Your task to perform on an android device: Add bose quietcomfort 35 to the cart on ebay.com Image 0: 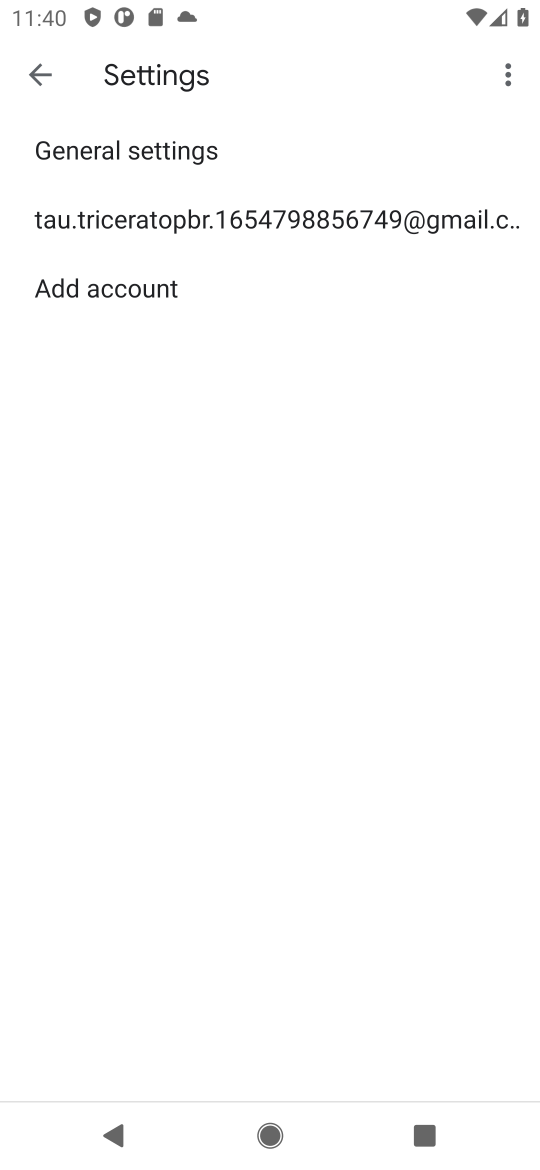
Step 0: press home button
Your task to perform on an android device: Add bose quietcomfort 35 to the cart on ebay.com Image 1: 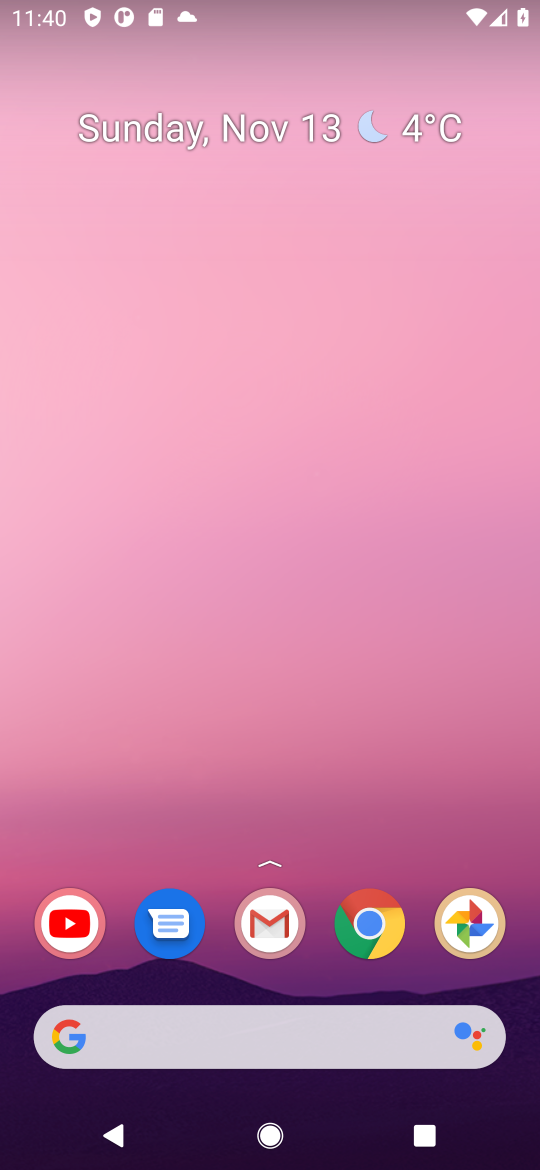
Step 1: click (376, 927)
Your task to perform on an android device: Add bose quietcomfort 35 to the cart on ebay.com Image 2: 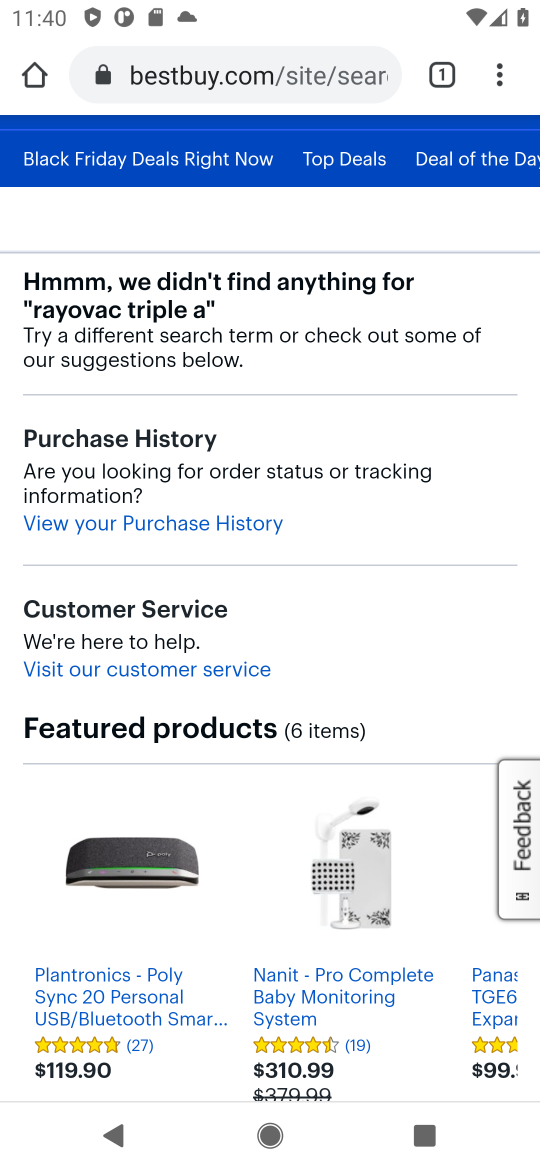
Step 2: click (321, 70)
Your task to perform on an android device: Add bose quietcomfort 35 to the cart on ebay.com Image 3: 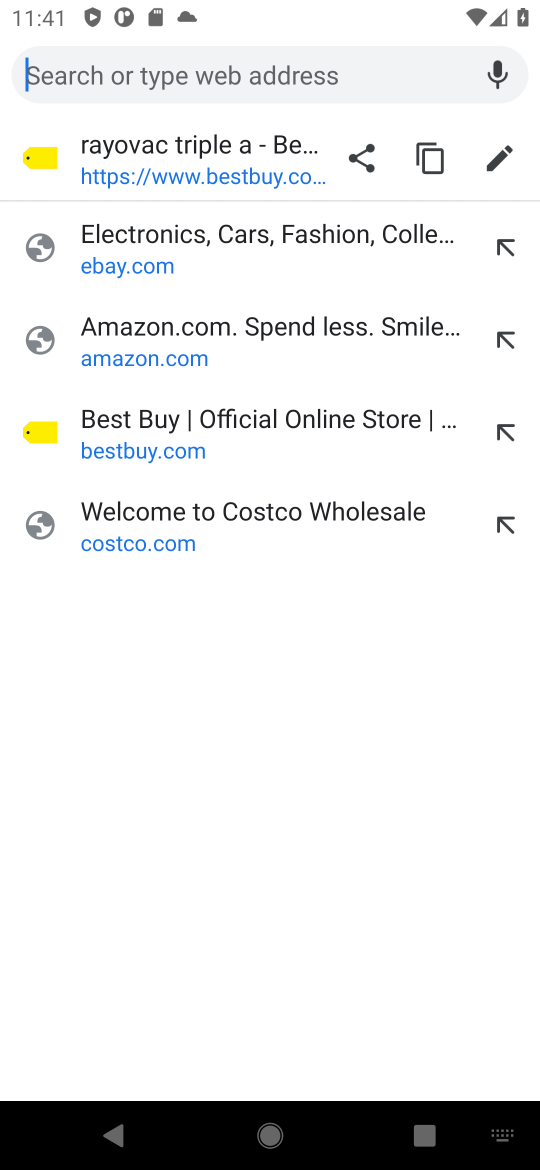
Step 3: click (161, 240)
Your task to perform on an android device: Add bose quietcomfort 35 to the cart on ebay.com Image 4: 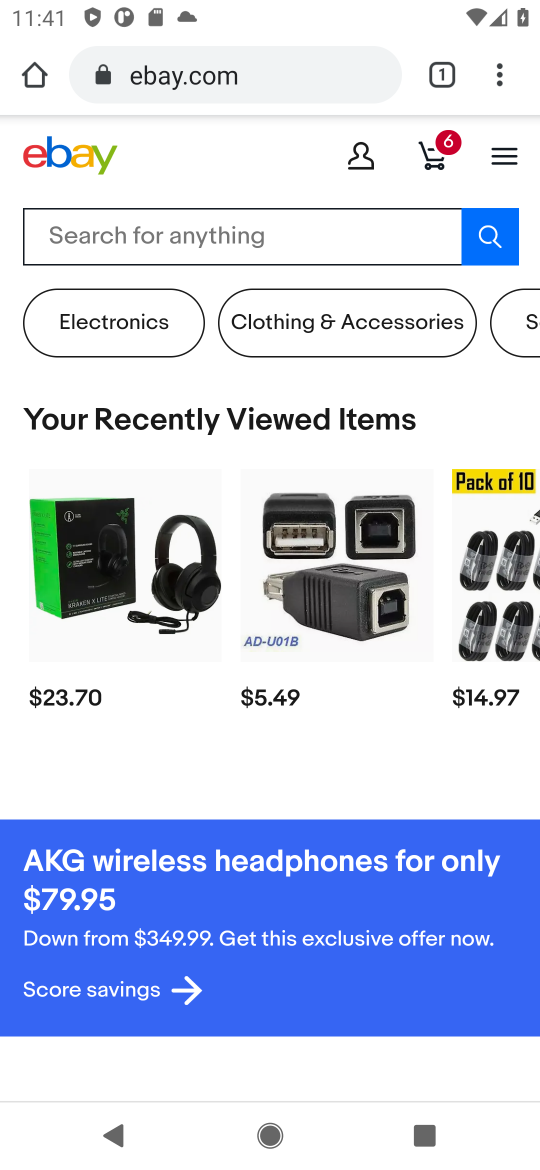
Step 4: click (349, 238)
Your task to perform on an android device: Add bose quietcomfort 35 to the cart on ebay.com Image 5: 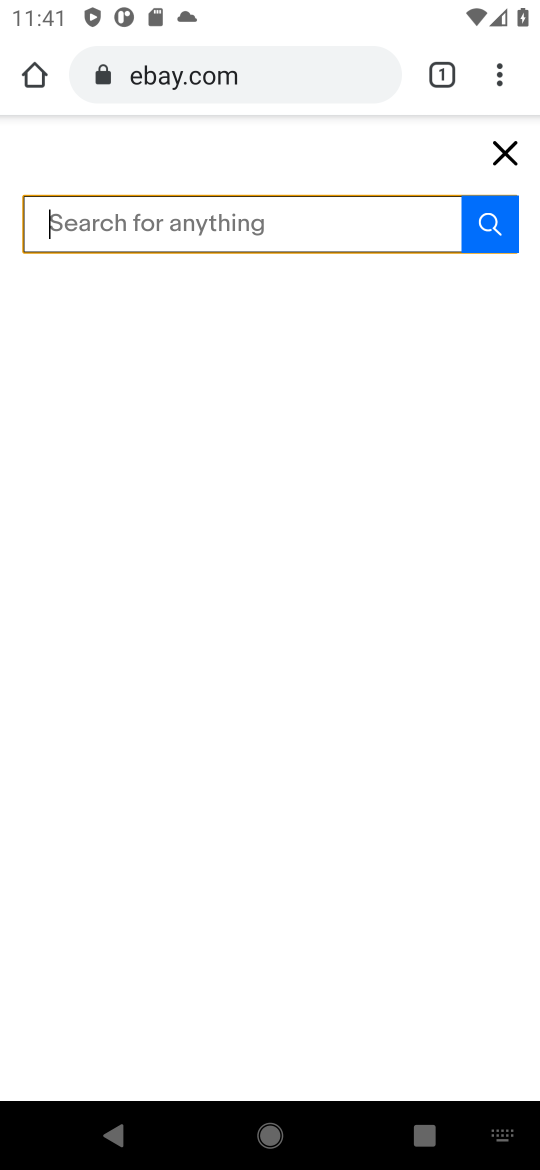
Step 5: type "bose quietcomfort 35 "
Your task to perform on an android device: Add bose quietcomfort 35 to the cart on ebay.com Image 6: 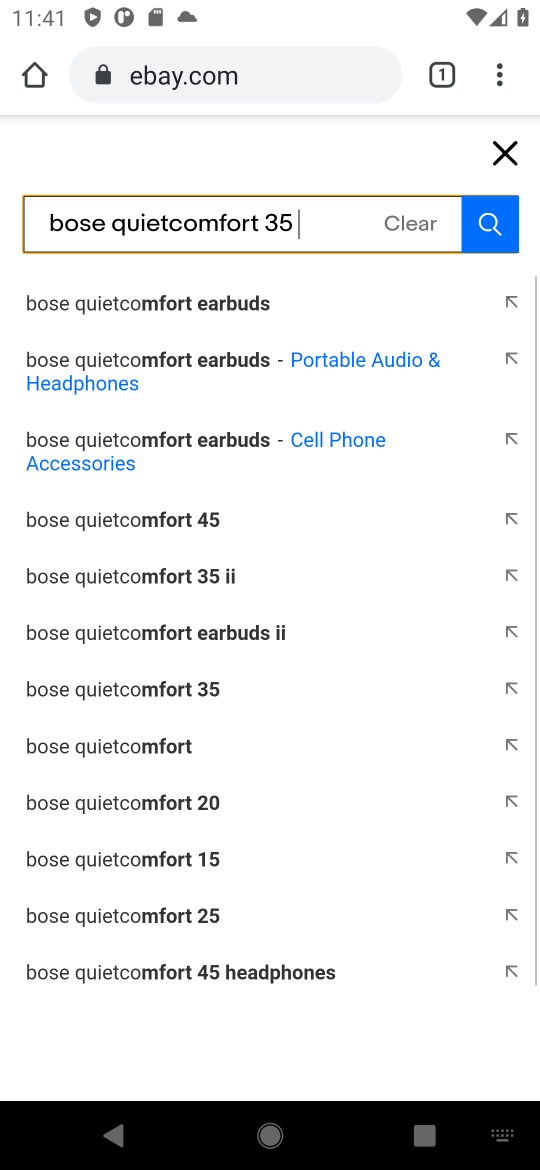
Step 6: press enter
Your task to perform on an android device: Add bose quietcomfort 35 to the cart on ebay.com Image 7: 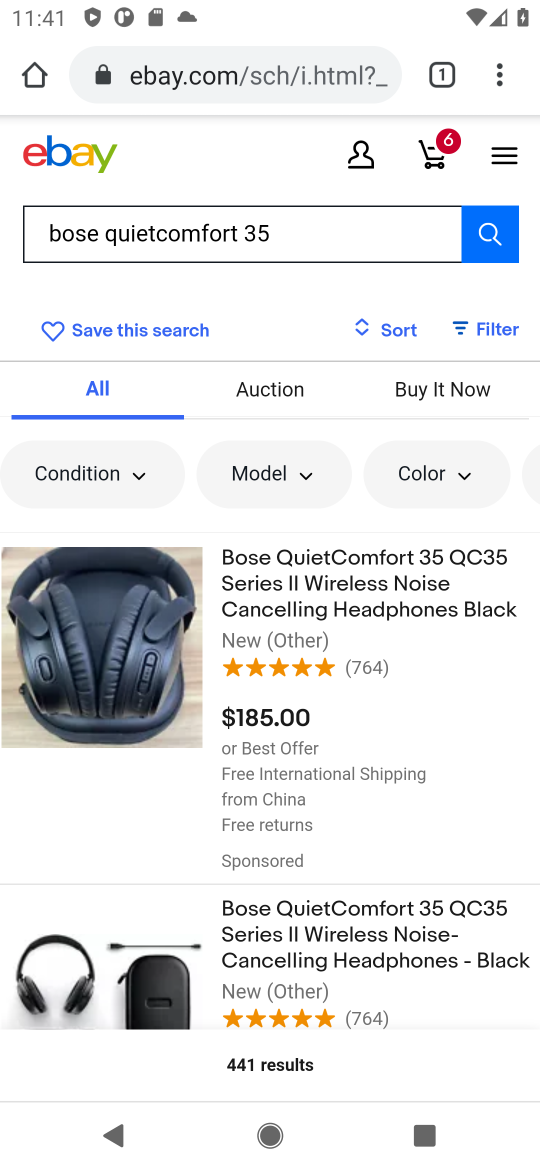
Step 7: click (57, 654)
Your task to perform on an android device: Add bose quietcomfort 35 to the cart on ebay.com Image 8: 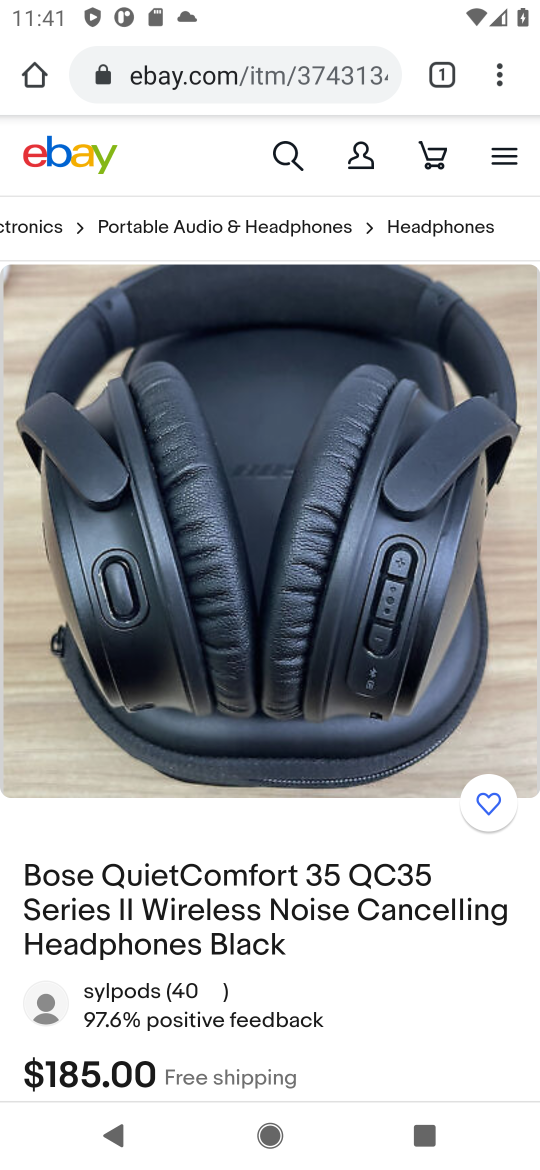
Step 8: drag from (382, 874) to (460, 269)
Your task to perform on an android device: Add bose quietcomfort 35 to the cart on ebay.com Image 9: 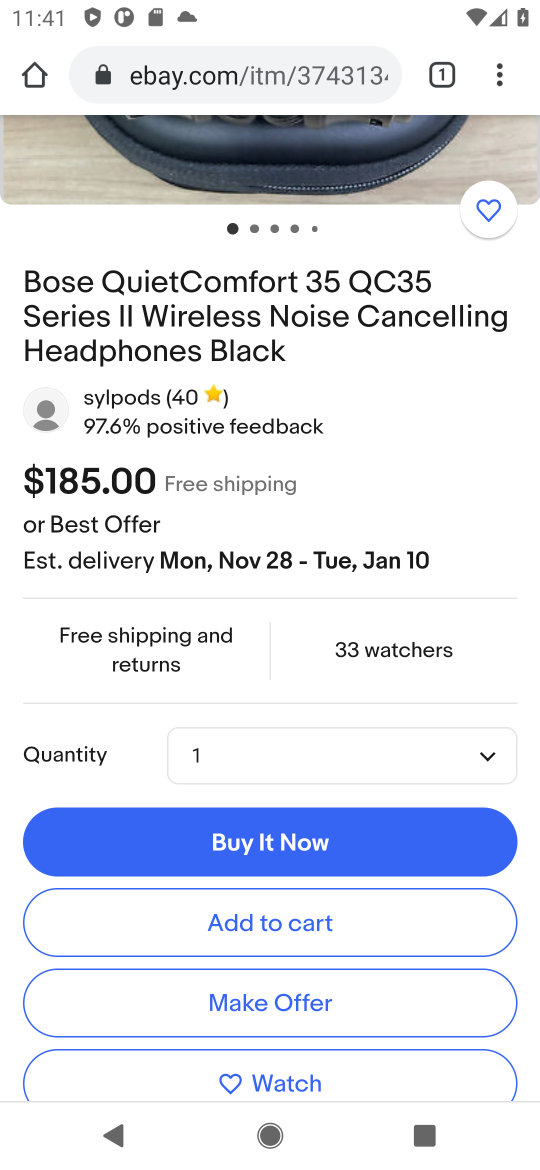
Step 9: click (315, 923)
Your task to perform on an android device: Add bose quietcomfort 35 to the cart on ebay.com Image 10: 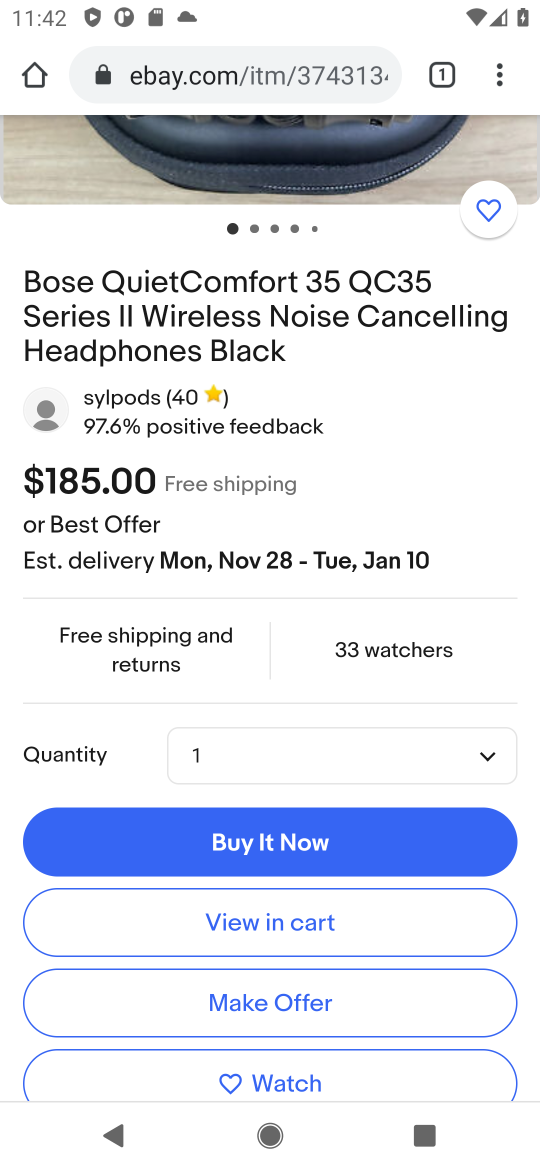
Step 10: click (312, 920)
Your task to perform on an android device: Add bose quietcomfort 35 to the cart on ebay.com Image 11: 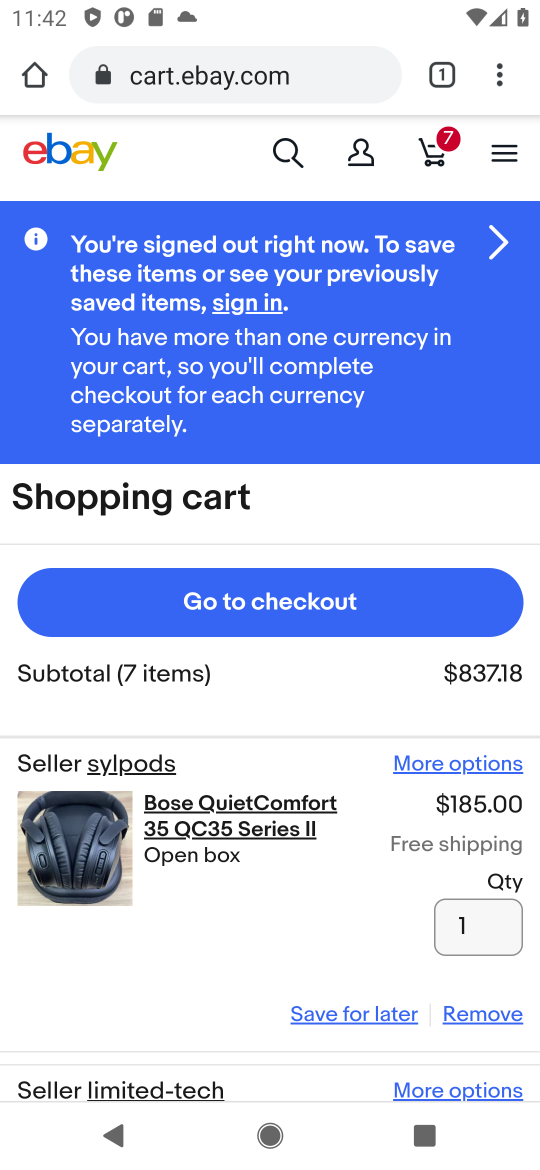
Step 11: task complete